Your task to perform on an android device: change keyboard looks Image 0: 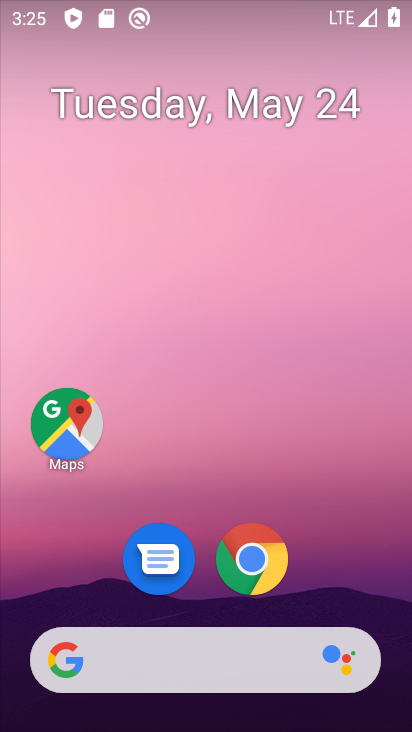
Step 0: drag from (326, 563) to (226, 216)
Your task to perform on an android device: change keyboard looks Image 1: 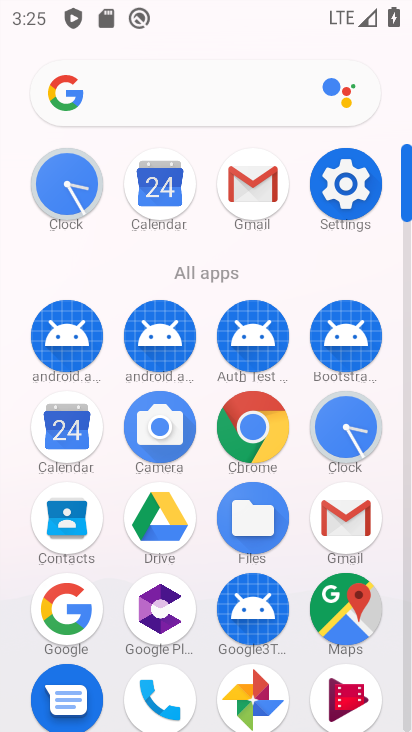
Step 1: click (346, 185)
Your task to perform on an android device: change keyboard looks Image 2: 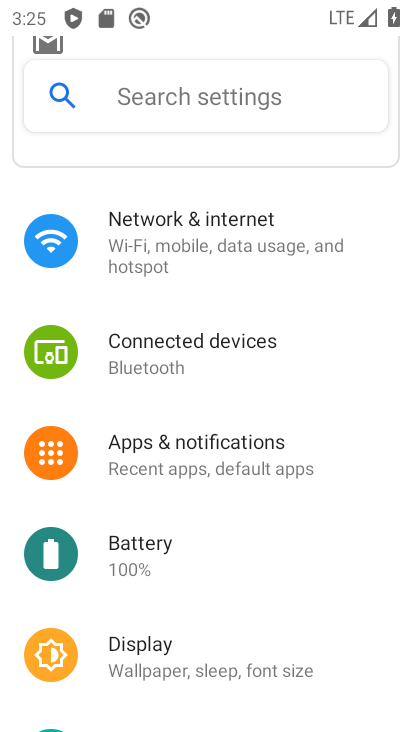
Step 2: drag from (178, 500) to (235, 387)
Your task to perform on an android device: change keyboard looks Image 3: 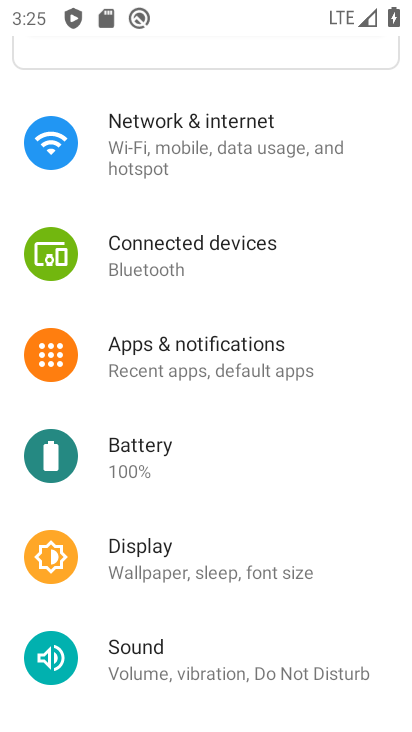
Step 3: drag from (169, 496) to (247, 392)
Your task to perform on an android device: change keyboard looks Image 4: 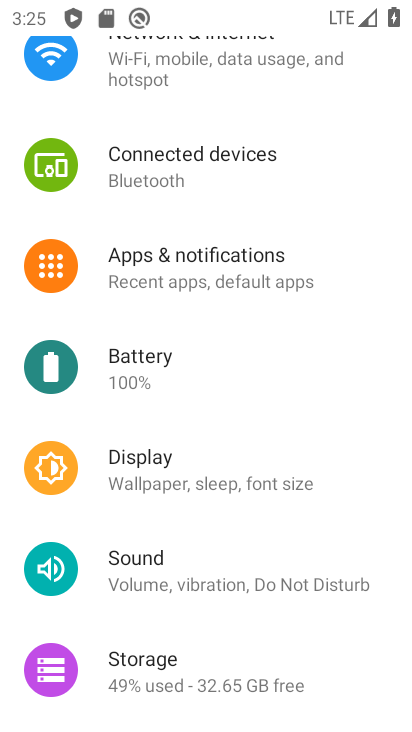
Step 4: drag from (171, 515) to (252, 425)
Your task to perform on an android device: change keyboard looks Image 5: 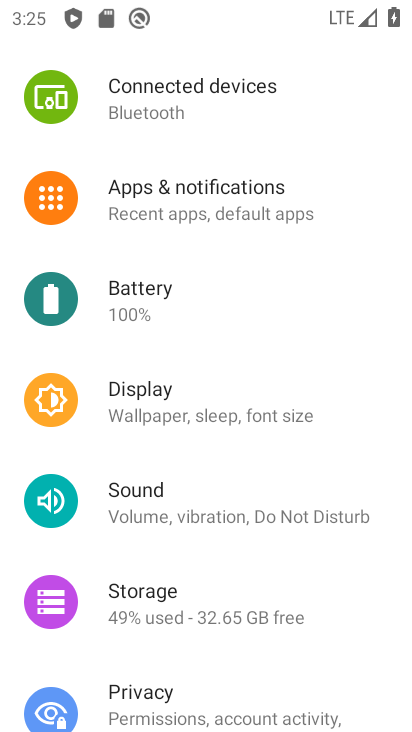
Step 5: drag from (175, 550) to (256, 452)
Your task to perform on an android device: change keyboard looks Image 6: 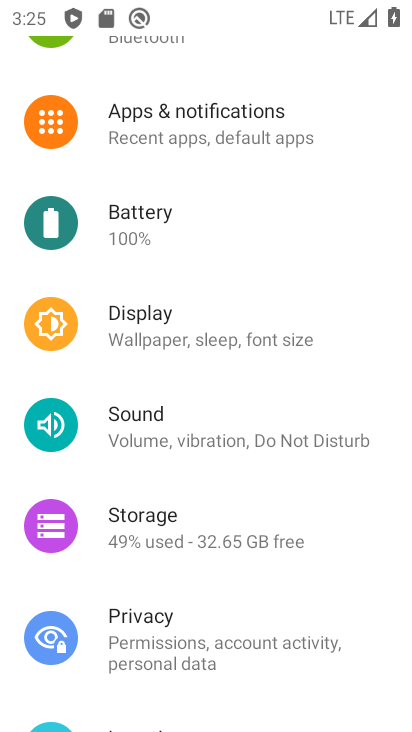
Step 6: drag from (177, 487) to (249, 399)
Your task to perform on an android device: change keyboard looks Image 7: 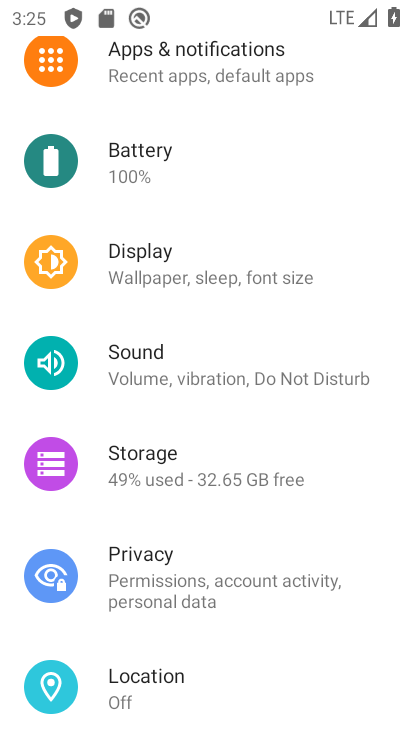
Step 7: drag from (158, 501) to (235, 398)
Your task to perform on an android device: change keyboard looks Image 8: 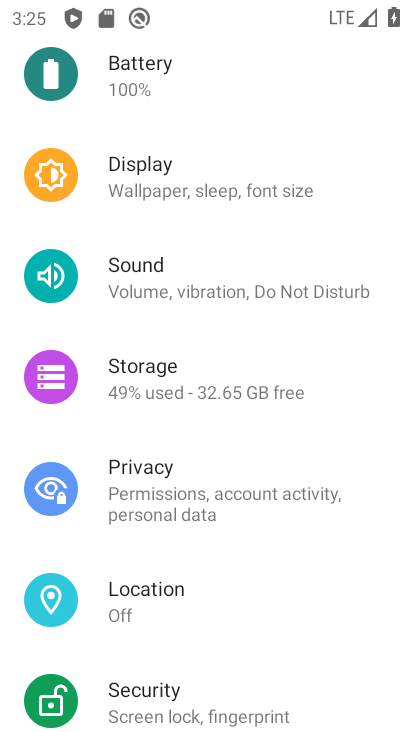
Step 8: drag from (142, 538) to (221, 414)
Your task to perform on an android device: change keyboard looks Image 9: 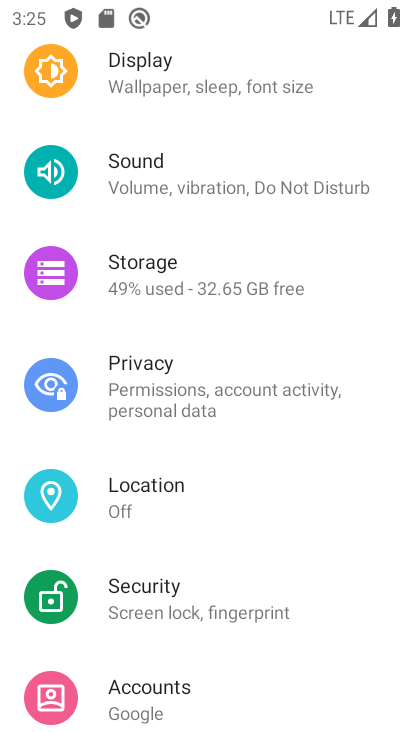
Step 9: drag from (138, 535) to (213, 424)
Your task to perform on an android device: change keyboard looks Image 10: 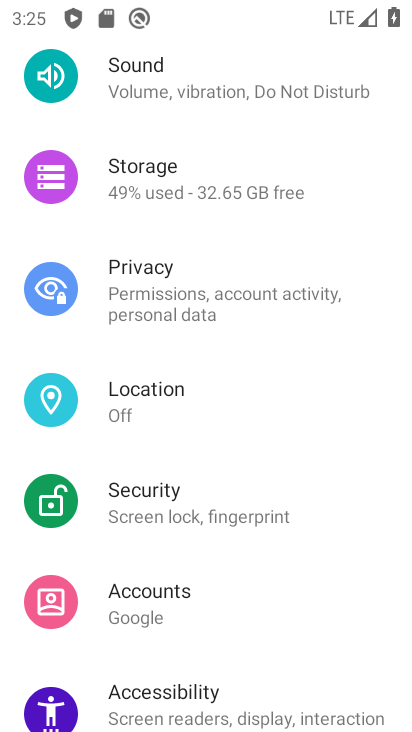
Step 10: drag from (138, 445) to (172, 366)
Your task to perform on an android device: change keyboard looks Image 11: 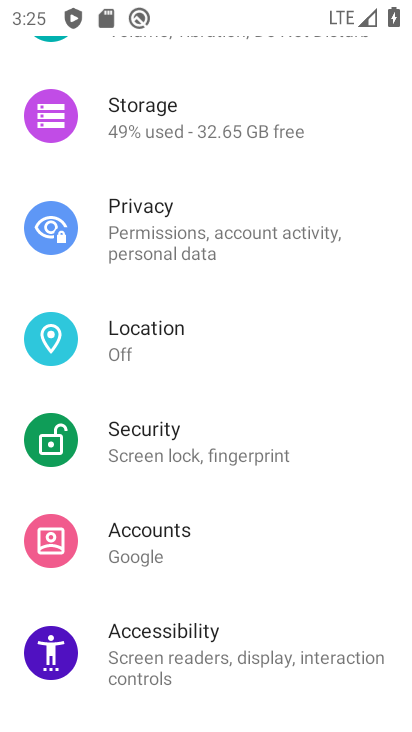
Step 11: drag from (136, 499) to (211, 396)
Your task to perform on an android device: change keyboard looks Image 12: 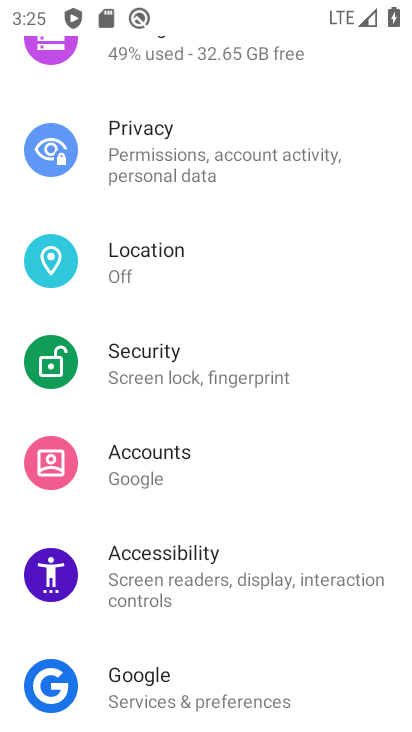
Step 12: drag from (106, 518) to (192, 380)
Your task to perform on an android device: change keyboard looks Image 13: 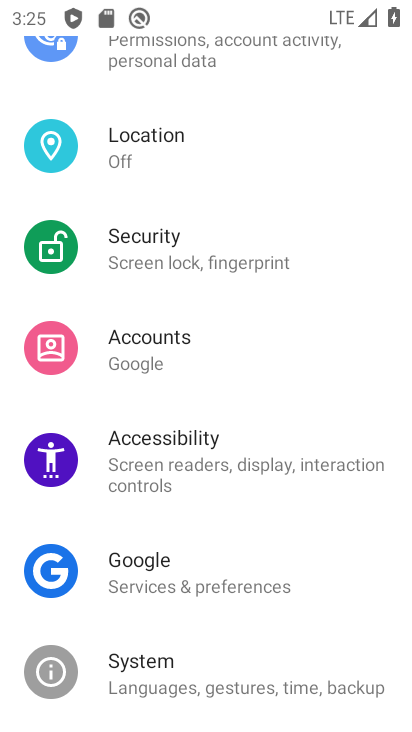
Step 13: drag from (102, 609) to (181, 513)
Your task to perform on an android device: change keyboard looks Image 14: 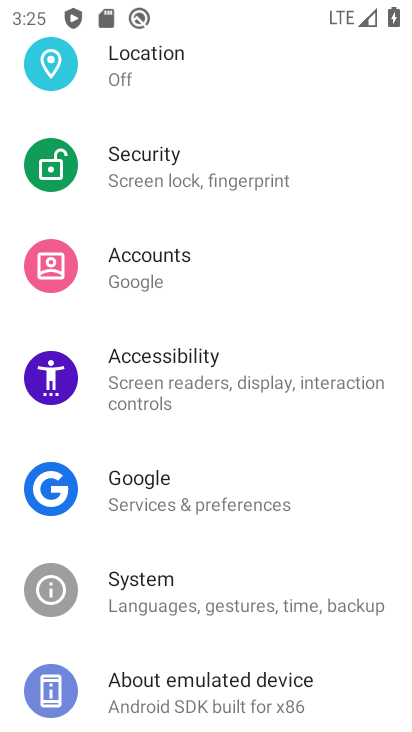
Step 14: click (193, 608)
Your task to perform on an android device: change keyboard looks Image 15: 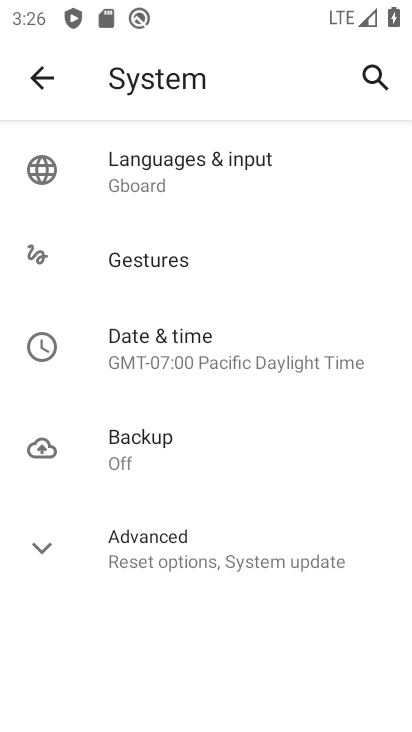
Step 15: click (171, 165)
Your task to perform on an android device: change keyboard looks Image 16: 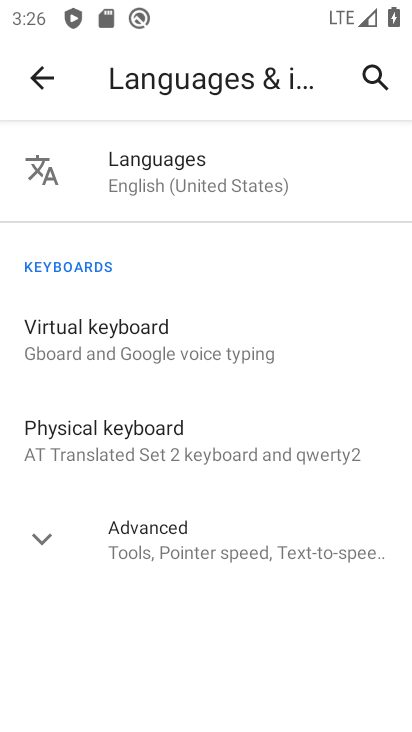
Step 16: click (157, 356)
Your task to perform on an android device: change keyboard looks Image 17: 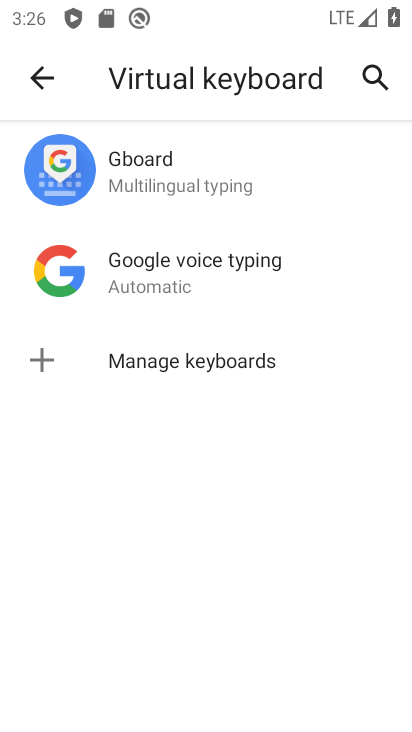
Step 17: click (145, 186)
Your task to perform on an android device: change keyboard looks Image 18: 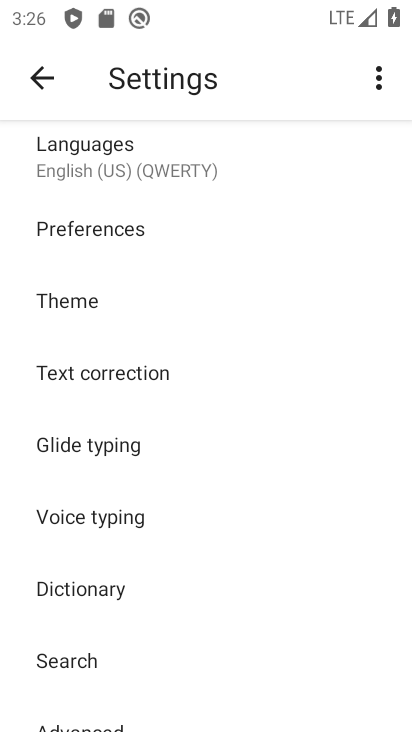
Step 18: click (89, 301)
Your task to perform on an android device: change keyboard looks Image 19: 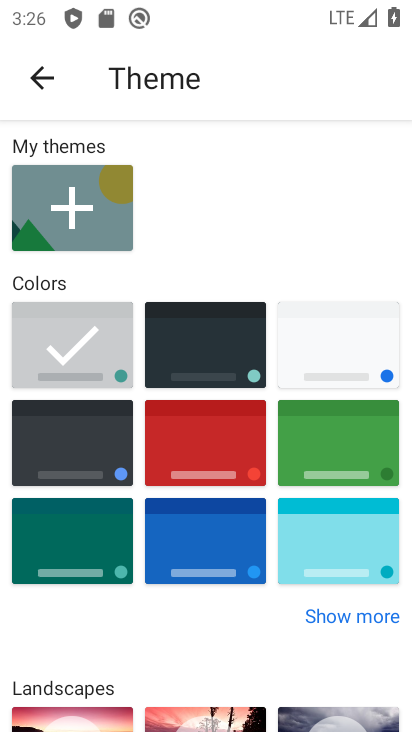
Step 19: click (184, 343)
Your task to perform on an android device: change keyboard looks Image 20: 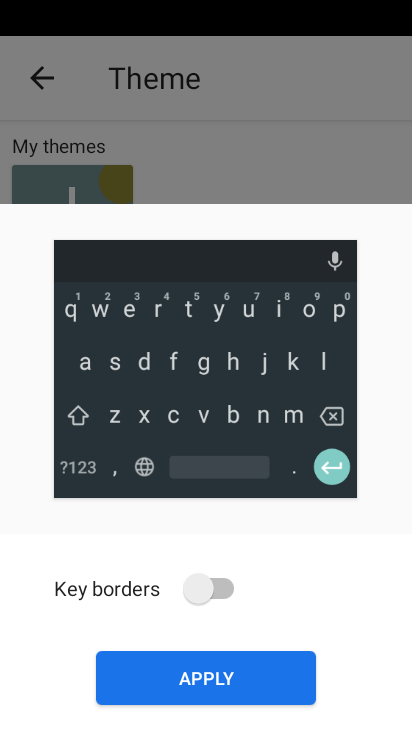
Step 20: click (215, 579)
Your task to perform on an android device: change keyboard looks Image 21: 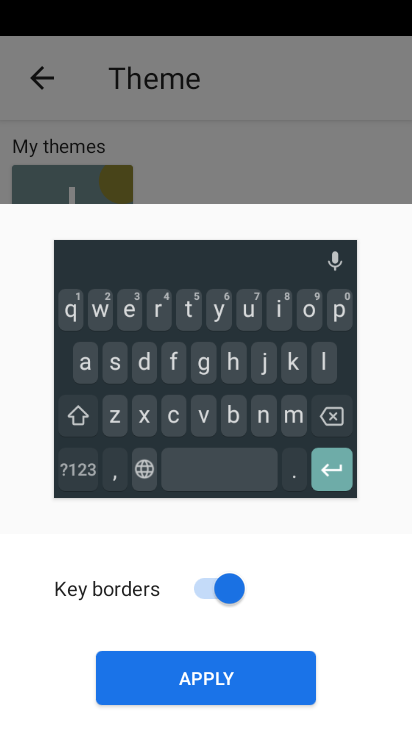
Step 21: click (191, 673)
Your task to perform on an android device: change keyboard looks Image 22: 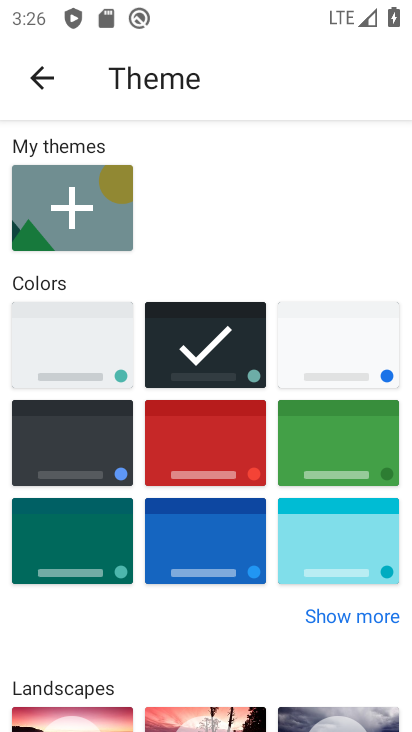
Step 22: task complete